Your task to perform on an android device: uninstall "The Home Depot" Image 0: 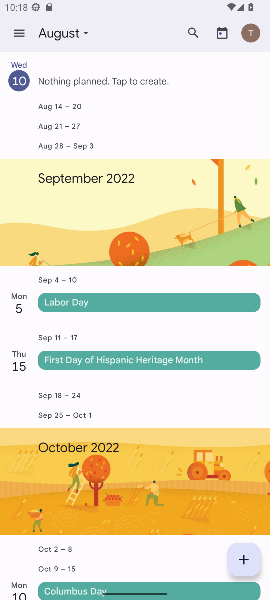
Step 0: press home button
Your task to perform on an android device: uninstall "The Home Depot" Image 1: 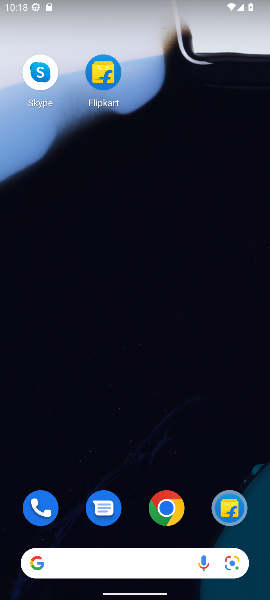
Step 1: drag from (131, 530) to (80, 186)
Your task to perform on an android device: uninstall "The Home Depot" Image 2: 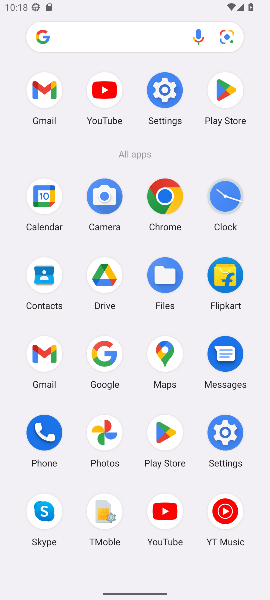
Step 2: click (163, 431)
Your task to perform on an android device: uninstall "The Home Depot" Image 3: 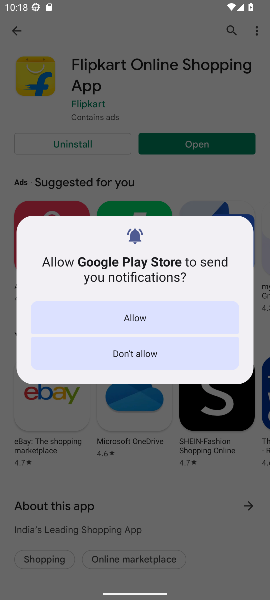
Step 3: click (136, 392)
Your task to perform on an android device: uninstall "The Home Depot" Image 4: 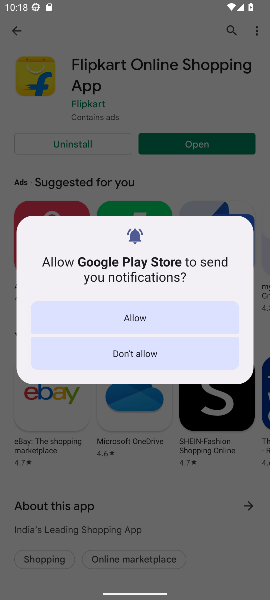
Step 4: click (126, 175)
Your task to perform on an android device: uninstall "The Home Depot" Image 5: 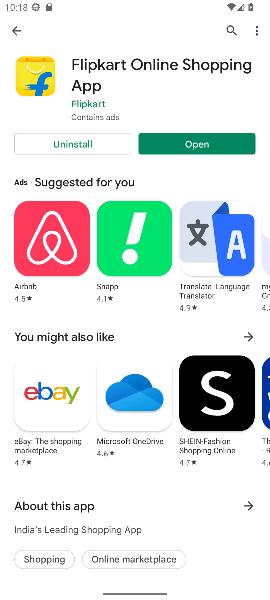
Step 5: click (11, 30)
Your task to perform on an android device: uninstall "The Home Depot" Image 6: 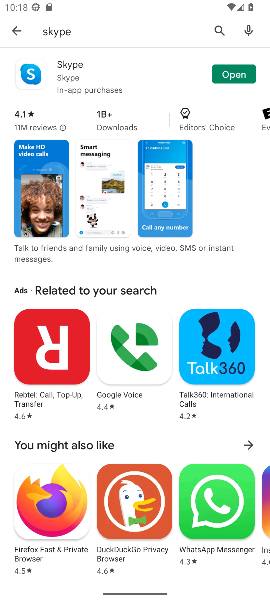
Step 6: click (267, 34)
Your task to perform on an android device: uninstall "The Home Depot" Image 7: 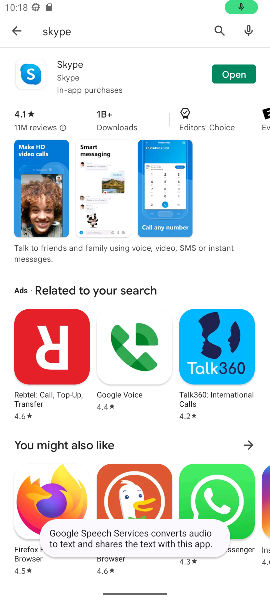
Step 7: click (217, 29)
Your task to perform on an android device: uninstall "The Home Depot" Image 8: 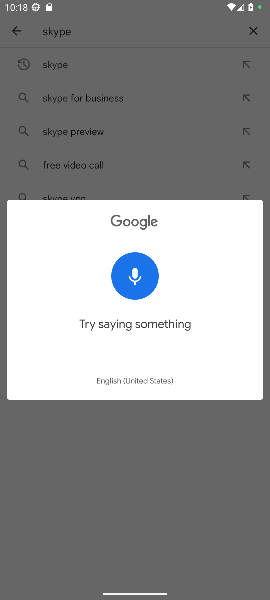
Step 8: click (258, 36)
Your task to perform on an android device: uninstall "The Home Depot" Image 9: 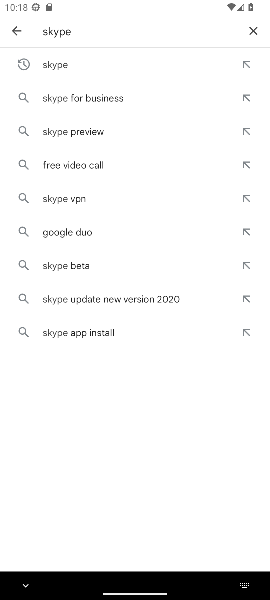
Step 9: type "The Home Depot"
Your task to perform on an android device: uninstall "The Home Depot" Image 10: 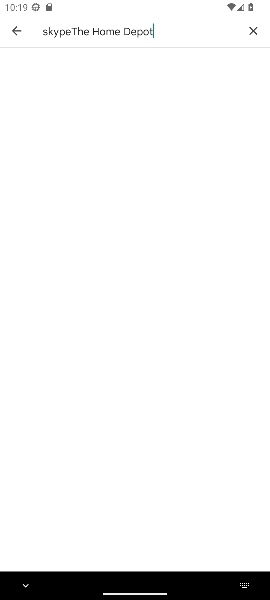
Step 10: click (69, 31)
Your task to perform on an android device: uninstall "The Home Depot" Image 11: 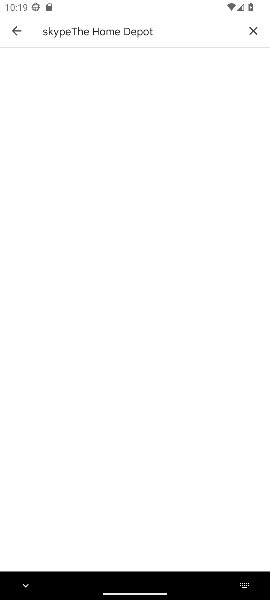
Step 11: drag from (39, 28) to (156, 32)
Your task to perform on an android device: uninstall "The Home Depot" Image 12: 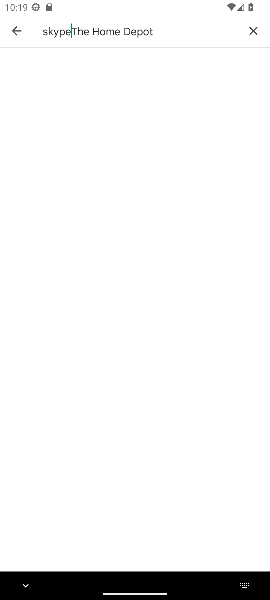
Step 12: click (255, 33)
Your task to perform on an android device: uninstall "The Home Depot" Image 13: 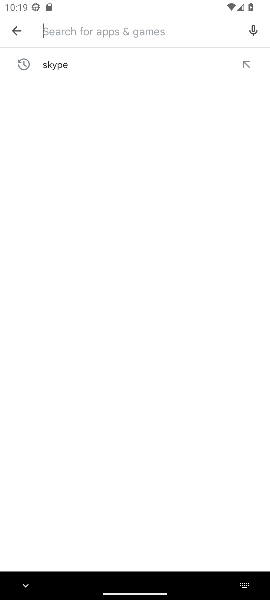
Step 13: type "The Home Depot"
Your task to perform on an android device: uninstall "The Home Depot" Image 14: 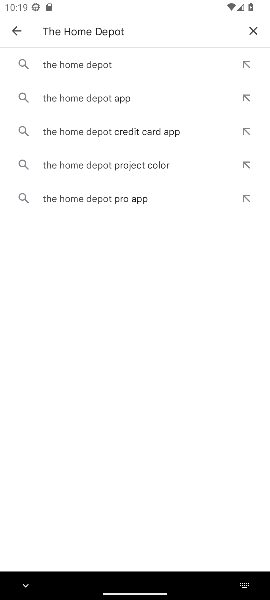
Step 14: click (67, 63)
Your task to perform on an android device: uninstall "The Home Depot" Image 15: 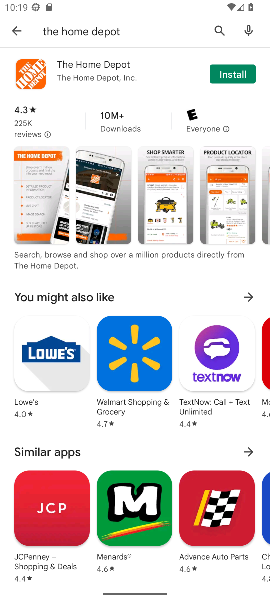
Step 15: click (222, 77)
Your task to perform on an android device: uninstall "The Home Depot" Image 16: 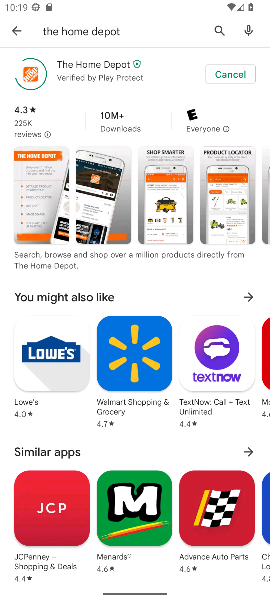
Step 16: click (217, 74)
Your task to perform on an android device: uninstall "The Home Depot" Image 17: 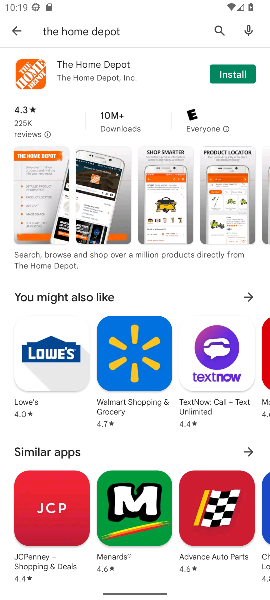
Step 17: task complete